Your task to perform on an android device: find snoozed emails in the gmail app Image 0: 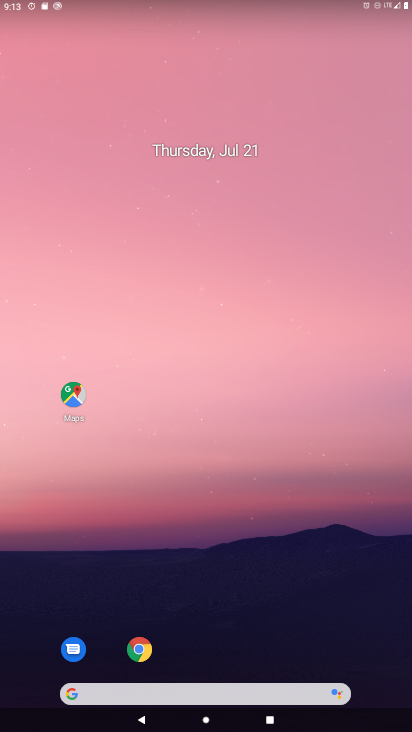
Step 0: drag from (366, 716) to (117, 57)
Your task to perform on an android device: find snoozed emails in the gmail app Image 1: 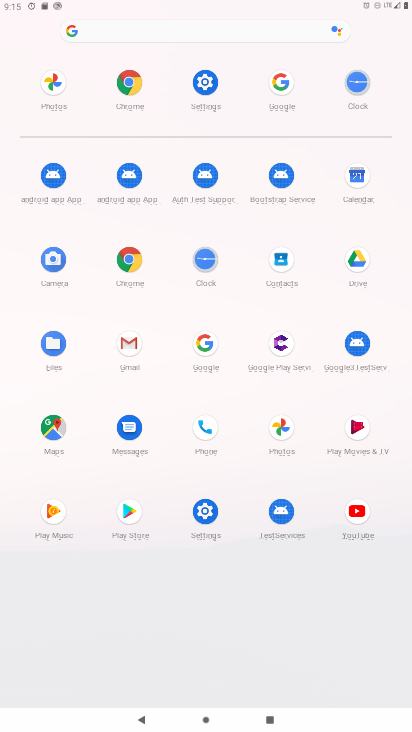
Step 1: click (132, 347)
Your task to perform on an android device: find snoozed emails in the gmail app Image 2: 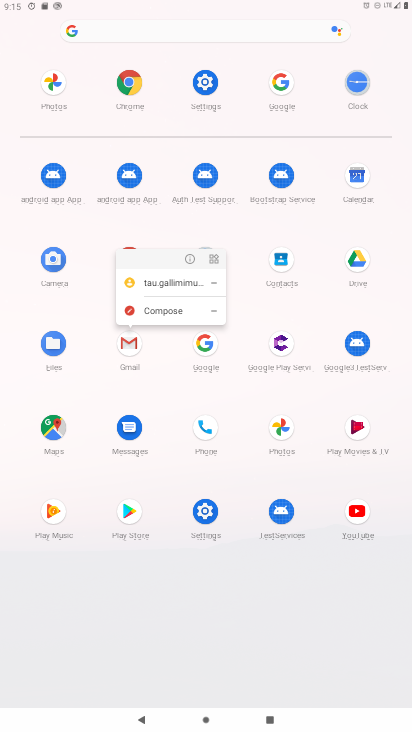
Step 2: click (124, 338)
Your task to perform on an android device: find snoozed emails in the gmail app Image 3: 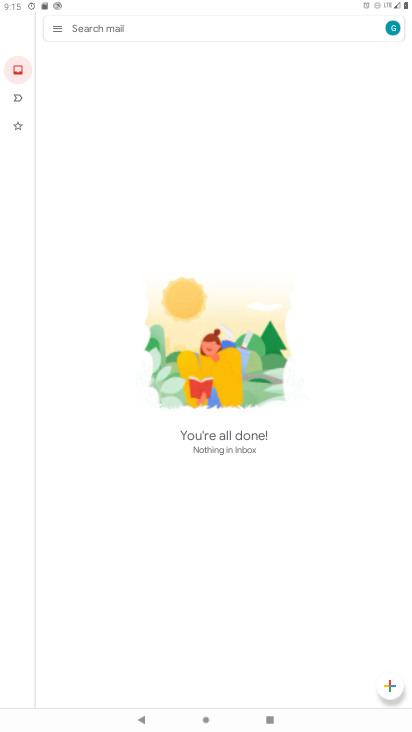
Step 3: click (50, 27)
Your task to perform on an android device: find snoozed emails in the gmail app Image 4: 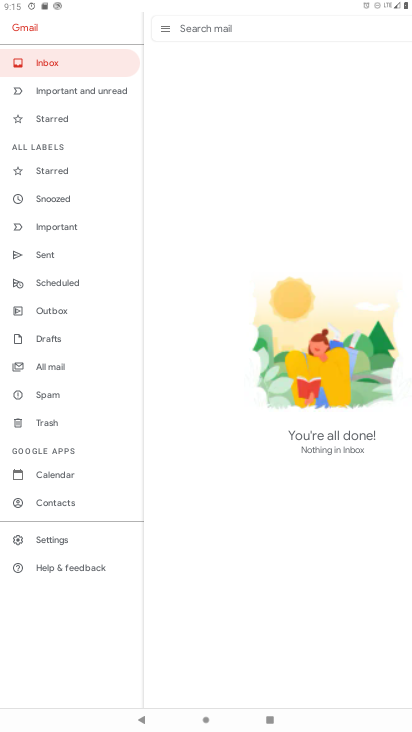
Step 4: click (59, 202)
Your task to perform on an android device: find snoozed emails in the gmail app Image 5: 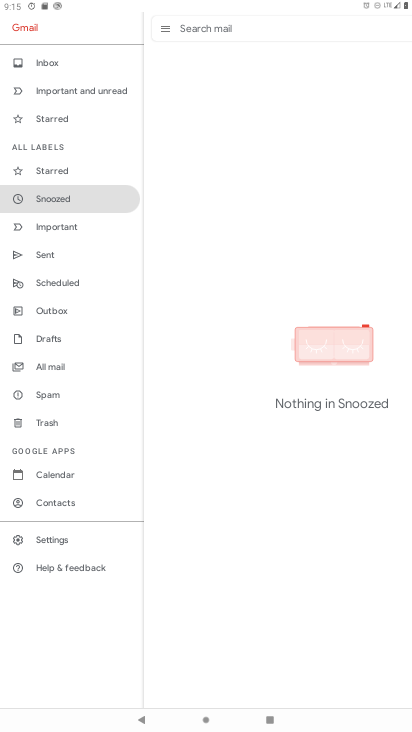
Step 5: task complete